Your task to perform on an android device: snooze an email in the gmail app Image 0: 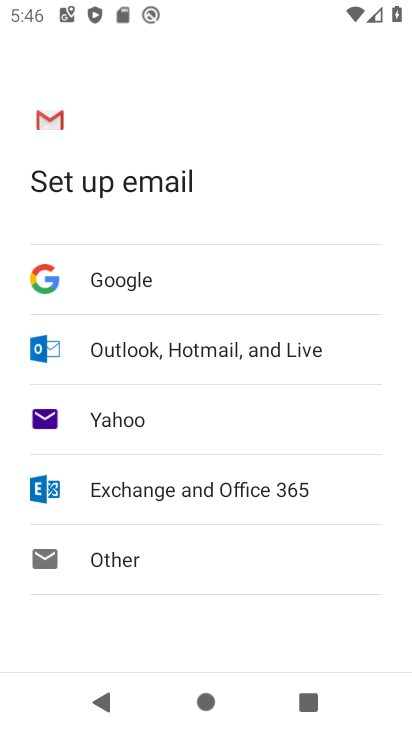
Step 0: press back button
Your task to perform on an android device: snooze an email in the gmail app Image 1: 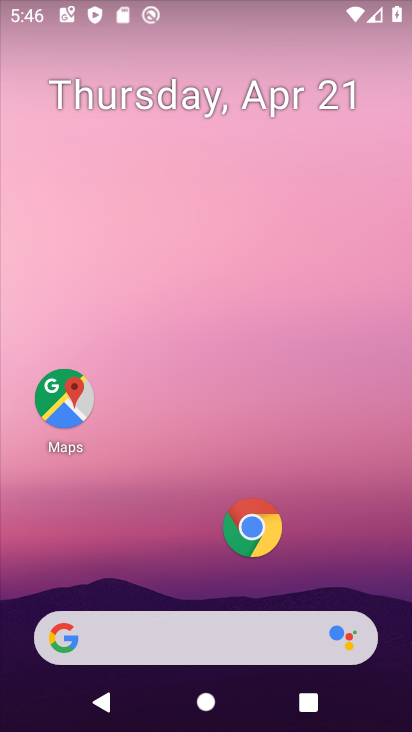
Step 1: drag from (155, 472) to (253, 4)
Your task to perform on an android device: snooze an email in the gmail app Image 2: 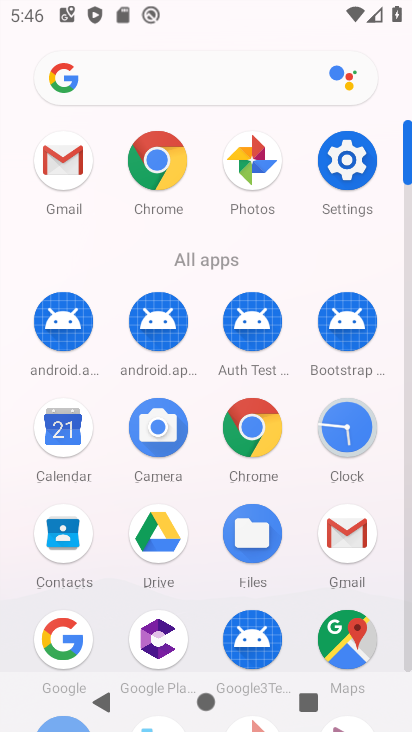
Step 2: click (57, 149)
Your task to perform on an android device: snooze an email in the gmail app Image 3: 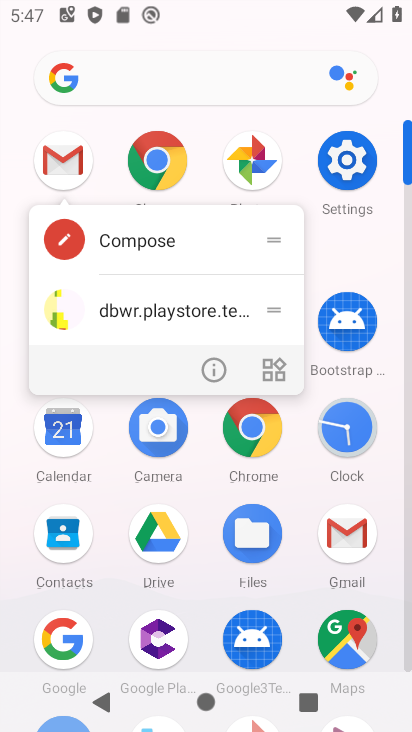
Step 3: click (64, 159)
Your task to perform on an android device: snooze an email in the gmail app Image 4: 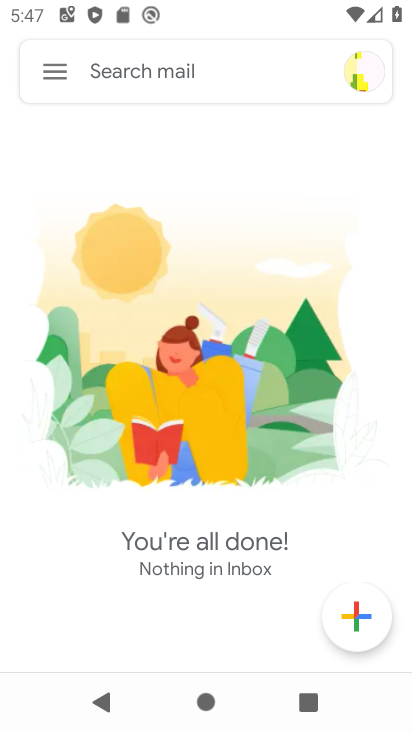
Step 4: click (62, 62)
Your task to perform on an android device: snooze an email in the gmail app Image 5: 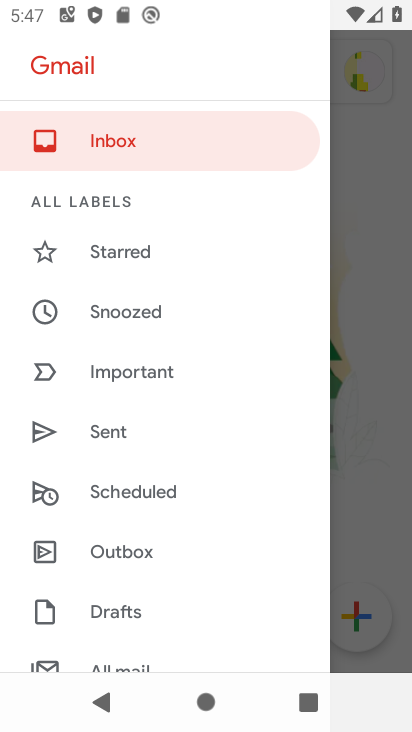
Step 5: drag from (120, 604) to (197, 133)
Your task to perform on an android device: snooze an email in the gmail app Image 6: 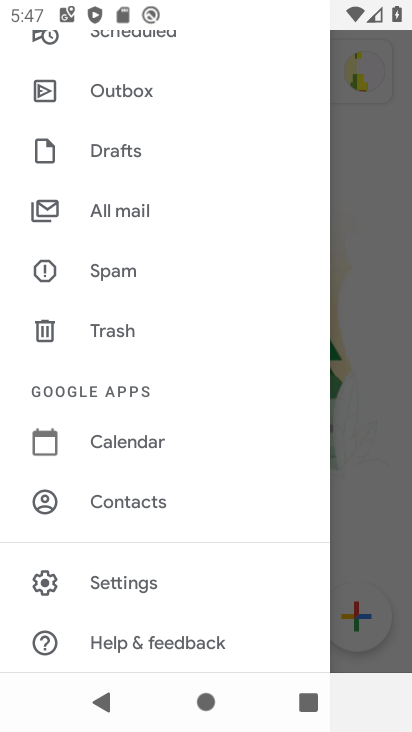
Step 6: click (151, 211)
Your task to perform on an android device: snooze an email in the gmail app Image 7: 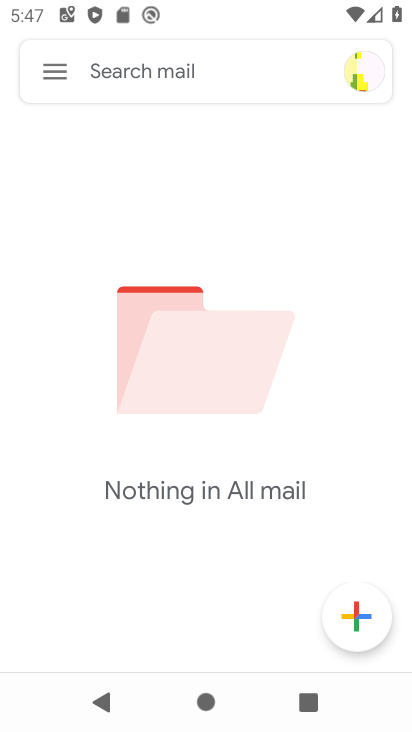
Step 7: task complete